Your task to perform on an android device: toggle sleep mode Image 0: 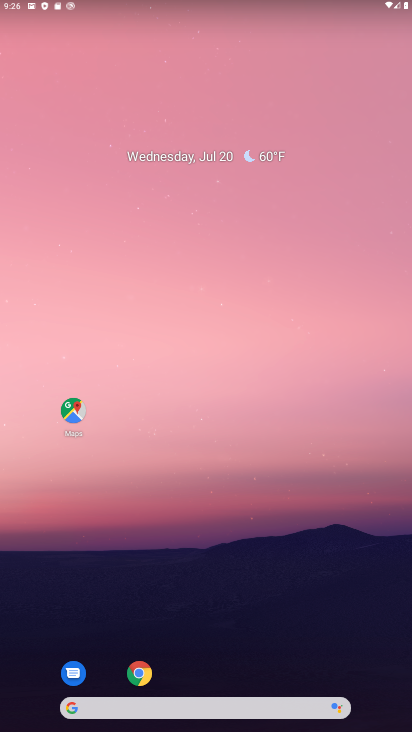
Step 0: drag from (233, 668) to (286, 9)
Your task to perform on an android device: toggle sleep mode Image 1: 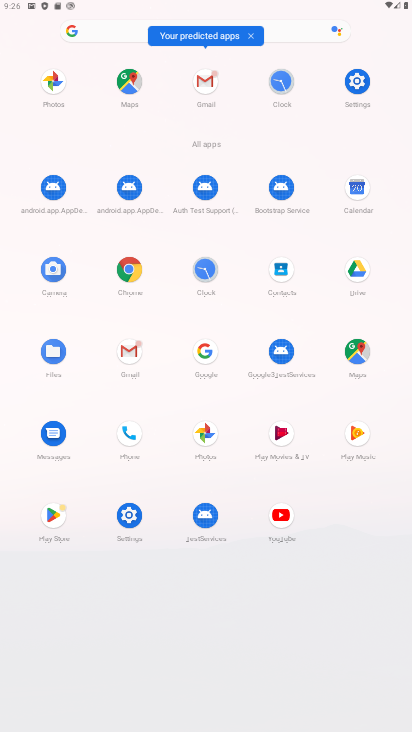
Step 1: click (360, 84)
Your task to perform on an android device: toggle sleep mode Image 2: 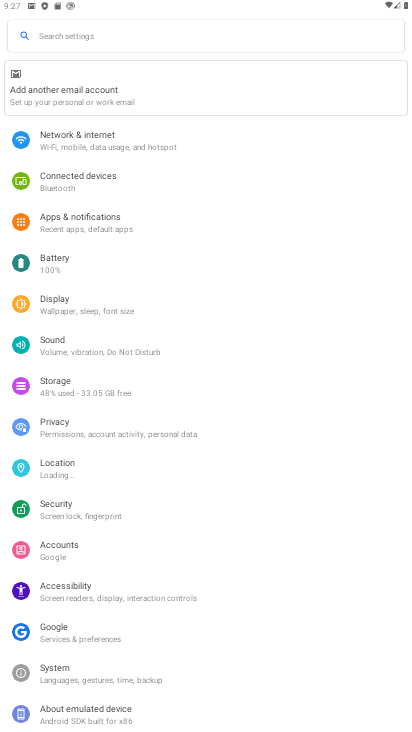
Step 2: click (193, 35)
Your task to perform on an android device: toggle sleep mode Image 3: 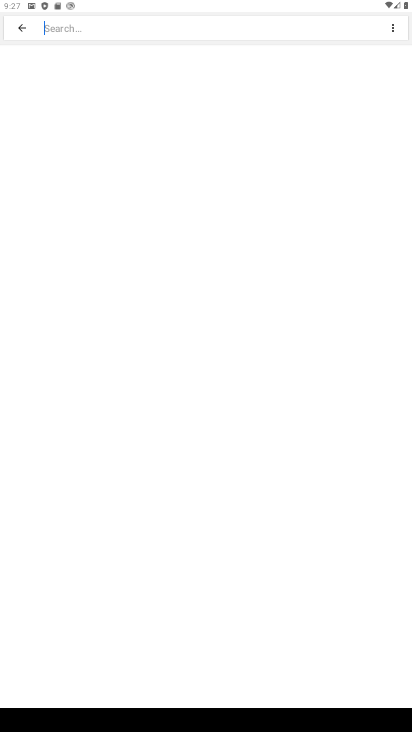
Step 3: type "sleep mode"
Your task to perform on an android device: toggle sleep mode Image 4: 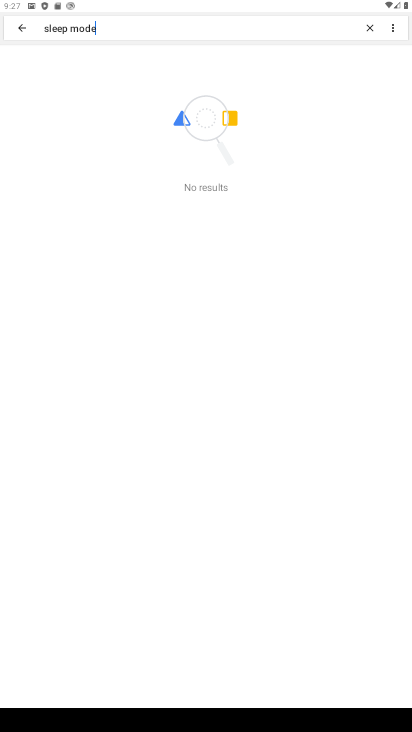
Step 4: task complete